Your task to perform on an android device: turn off sleep mode Image 0: 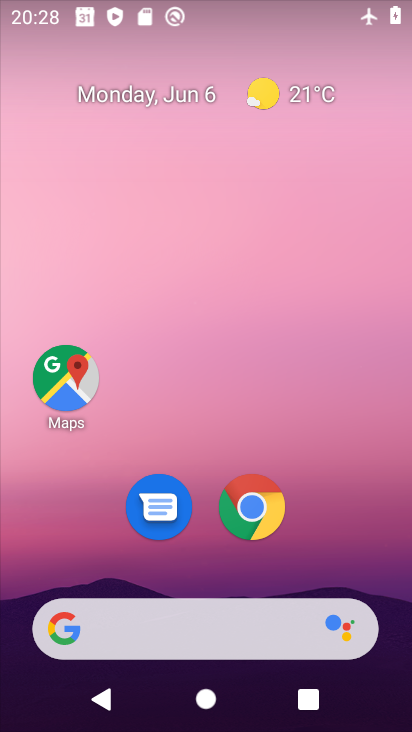
Step 0: drag from (233, 571) to (235, 52)
Your task to perform on an android device: turn off sleep mode Image 1: 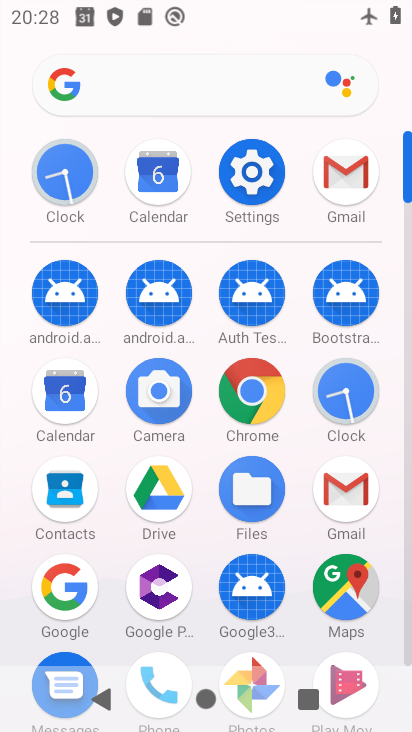
Step 1: click (244, 179)
Your task to perform on an android device: turn off sleep mode Image 2: 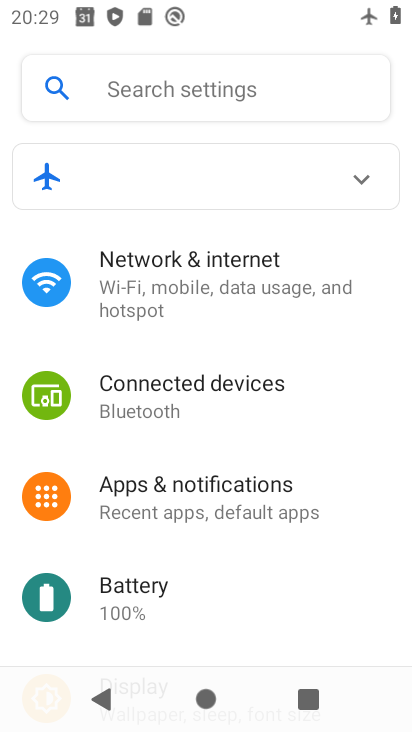
Step 2: task complete